Your task to perform on an android device: Go to display settings Image 0: 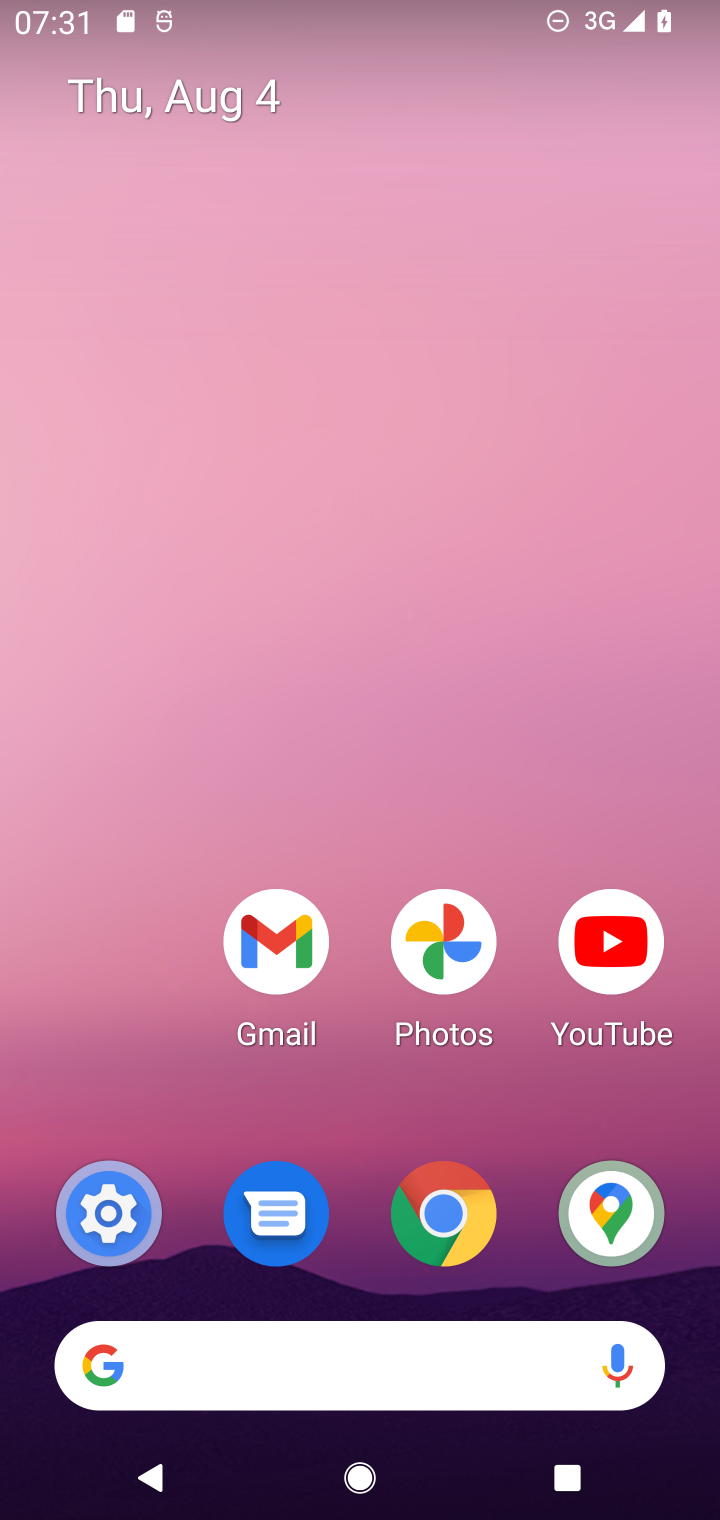
Step 0: drag from (159, 1072) to (203, 520)
Your task to perform on an android device: Go to display settings Image 1: 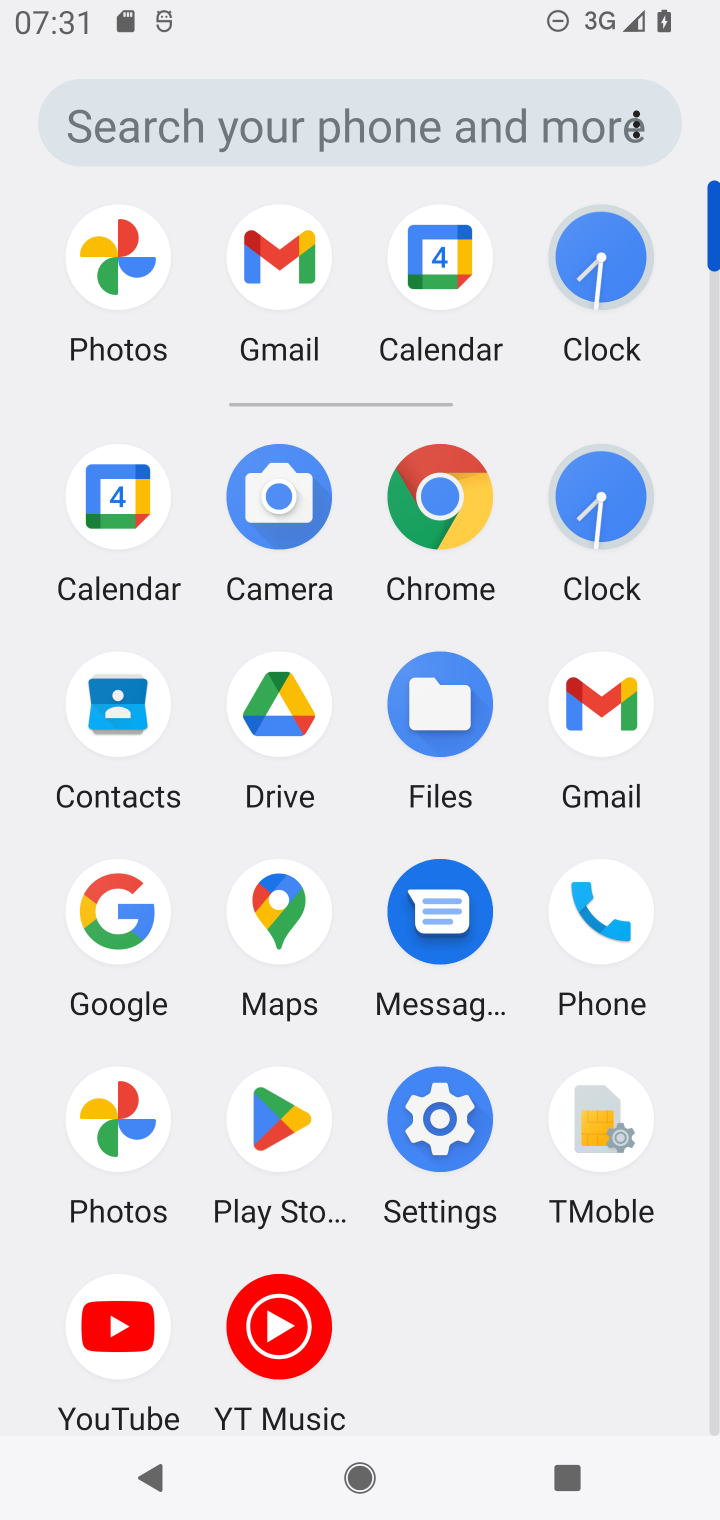
Step 1: click (446, 1120)
Your task to perform on an android device: Go to display settings Image 2: 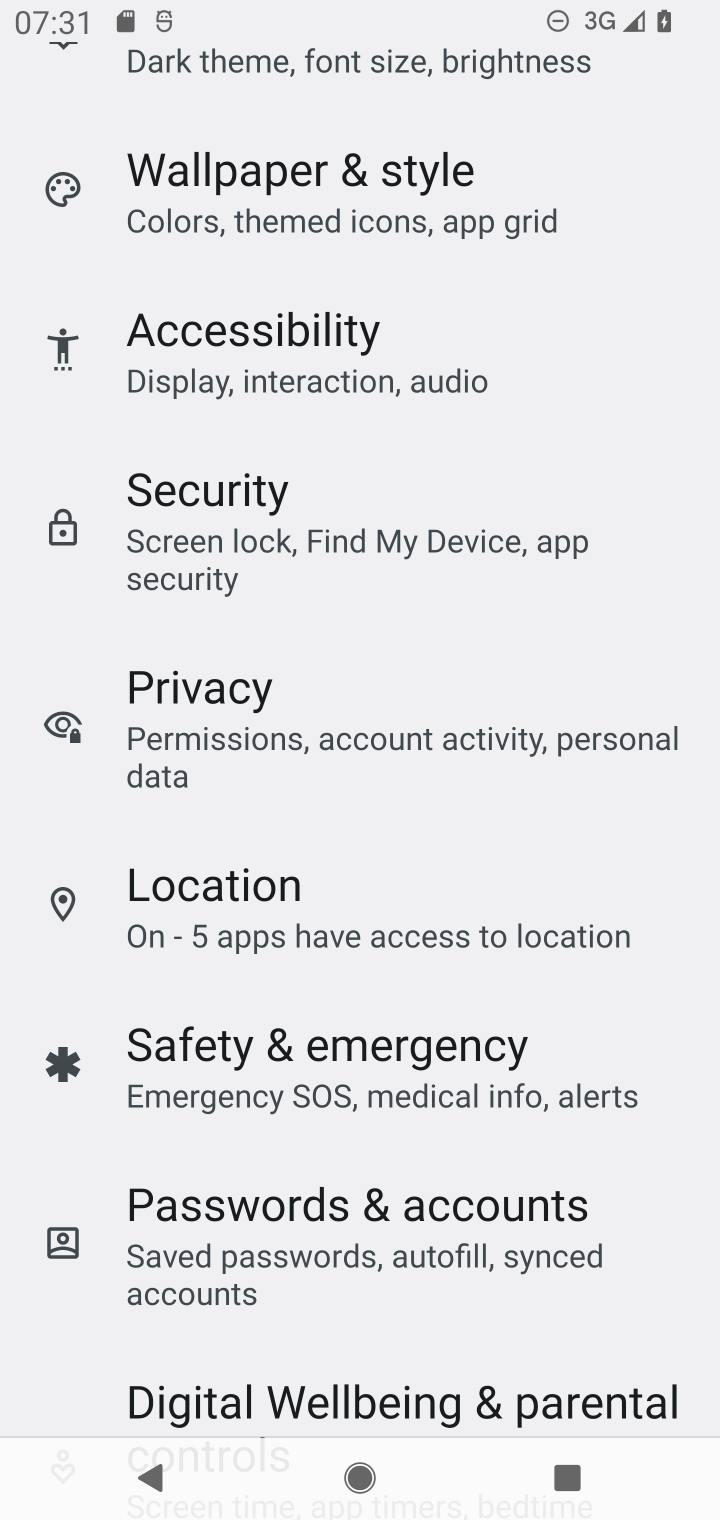
Step 2: drag from (649, 1272) to (630, 852)
Your task to perform on an android device: Go to display settings Image 3: 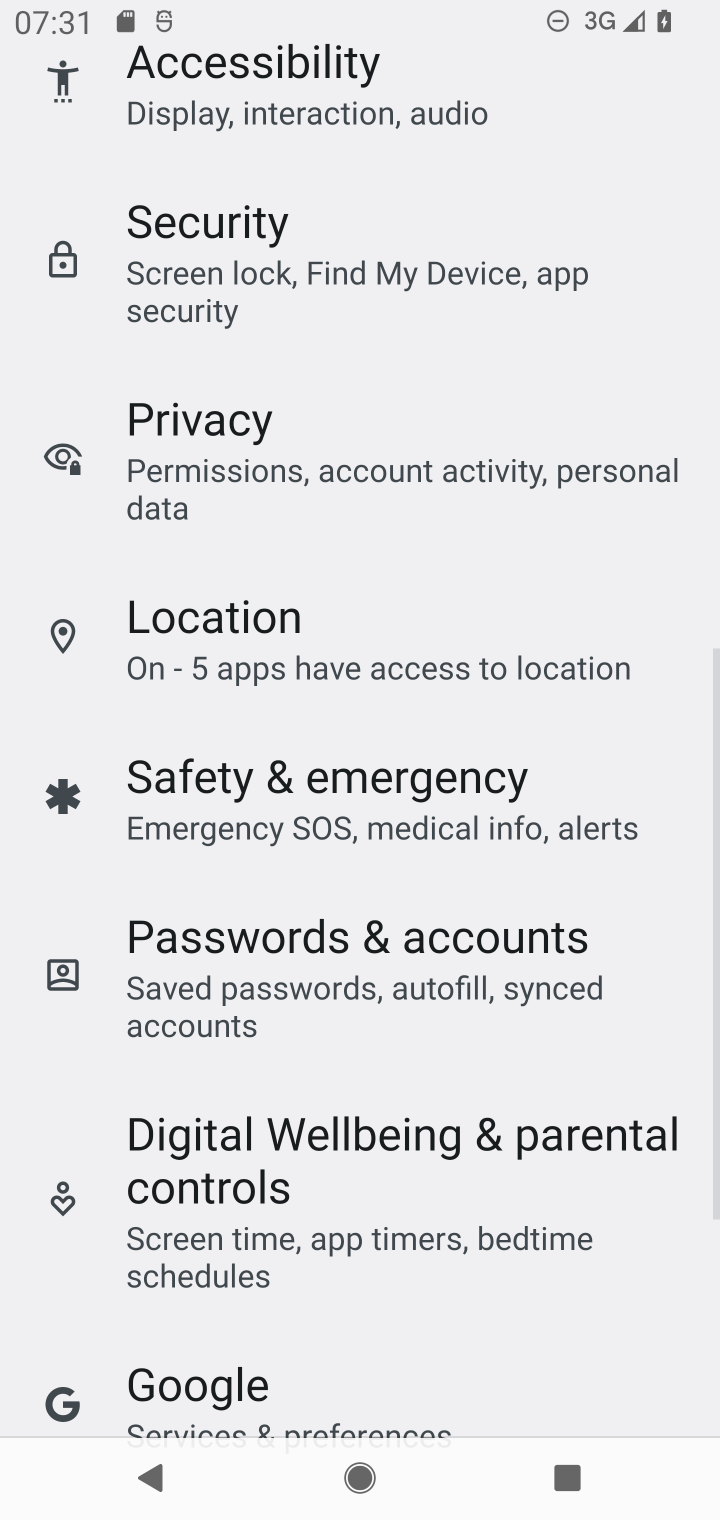
Step 3: drag from (547, 1287) to (543, 1022)
Your task to perform on an android device: Go to display settings Image 4: 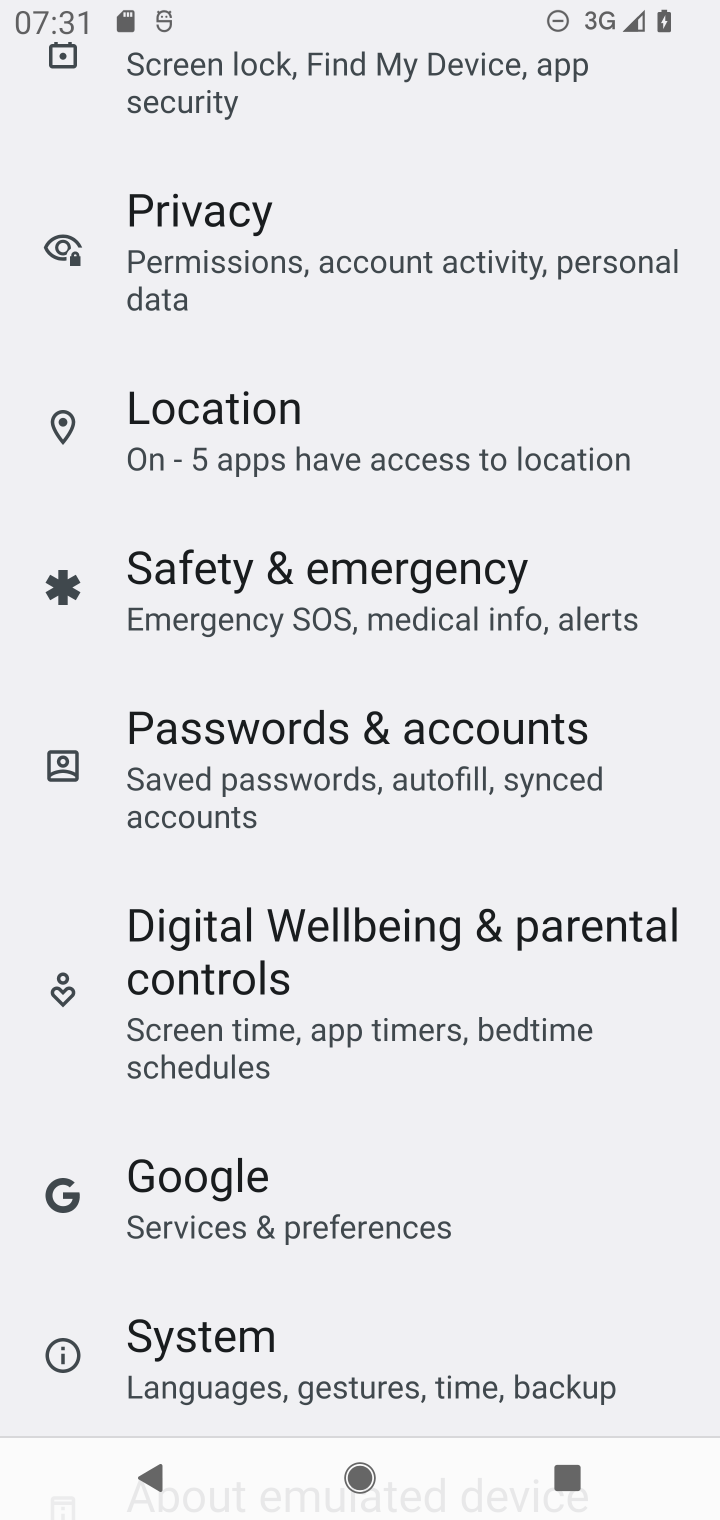
Step 4: drag from (541, 1233) to (535, 852)
Your task to perform on an android device: Go to display settings Image 5: 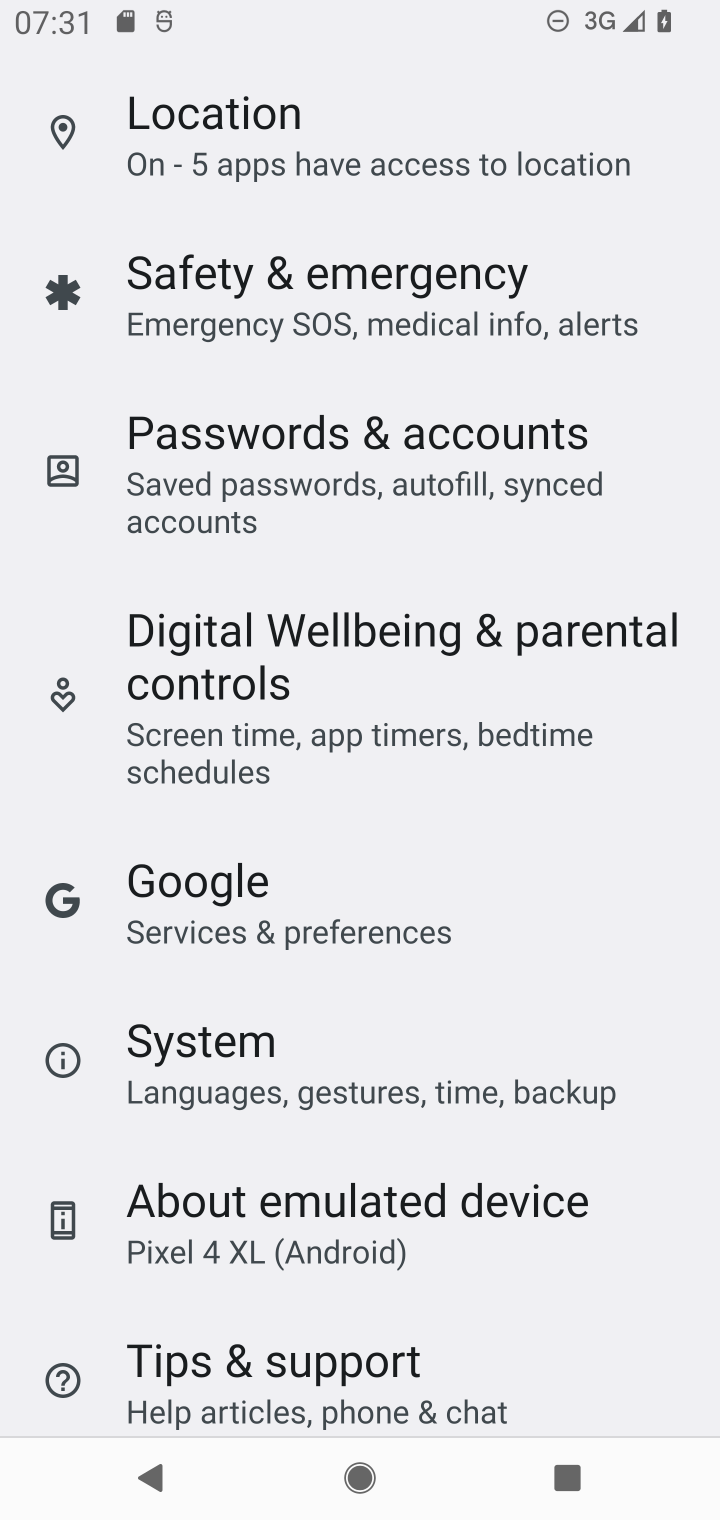
Step 5: drag from (554, 1280) to (565, 898)
Your task to perform on an android device: Go to display settings Image 6: 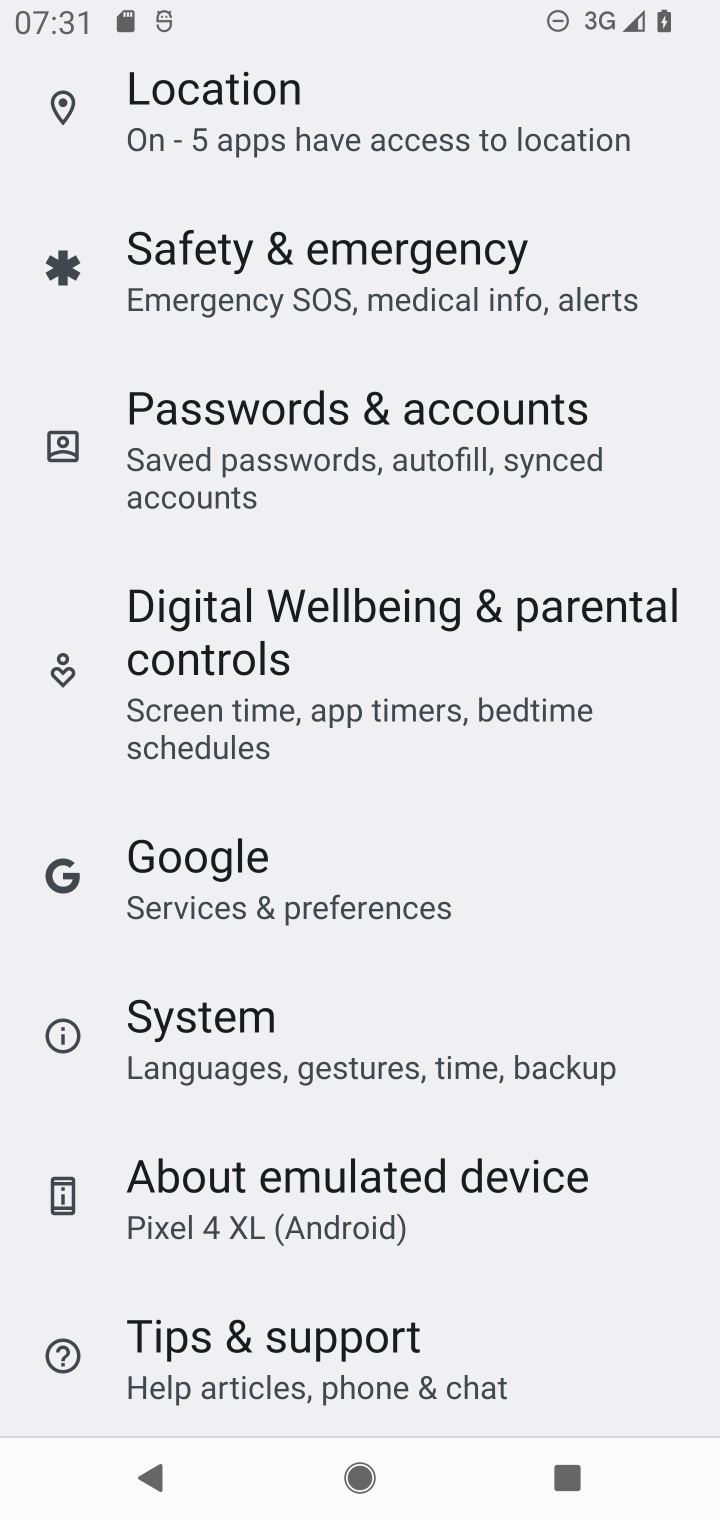
Step 6: drag from (548, 1174) to (530, 813)
Your task to perform on an android device: Go to display settings Image 7: 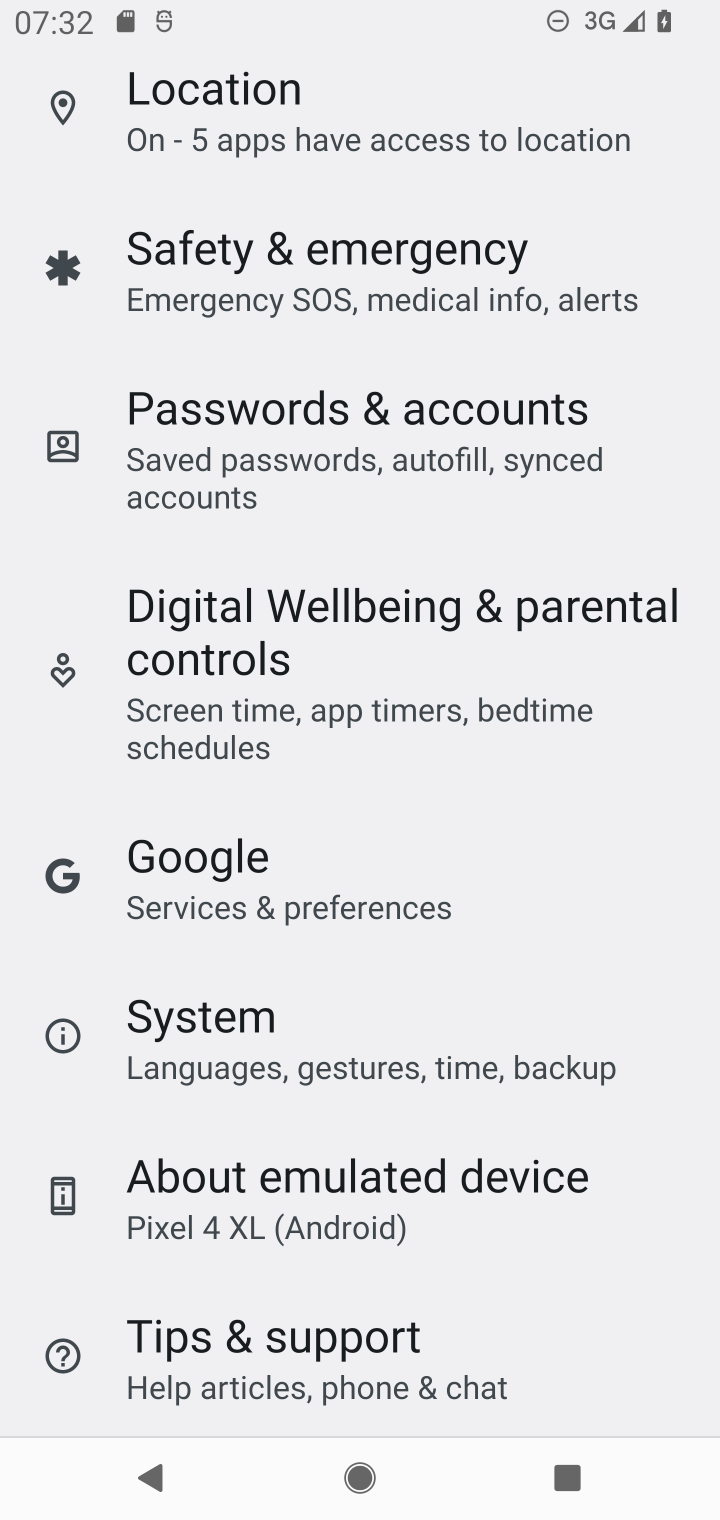
Step 7: drag from (579, 755) to (593, 1043)
Your task to perform on an android device: Go to display settings Image 8: 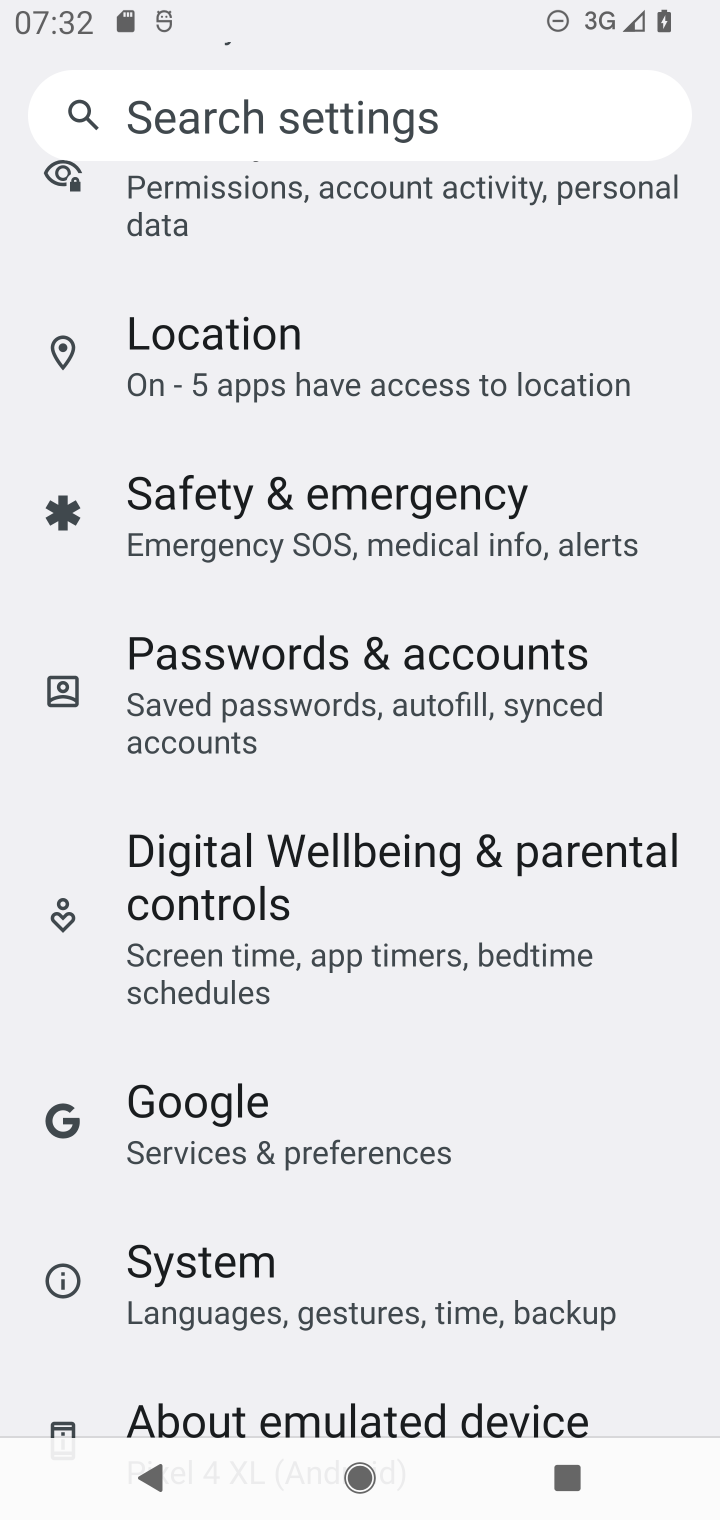
Step 8: drag from (655, 664) to (661, 966)
Your task to perform on an android device: Go to display settings Image 9: 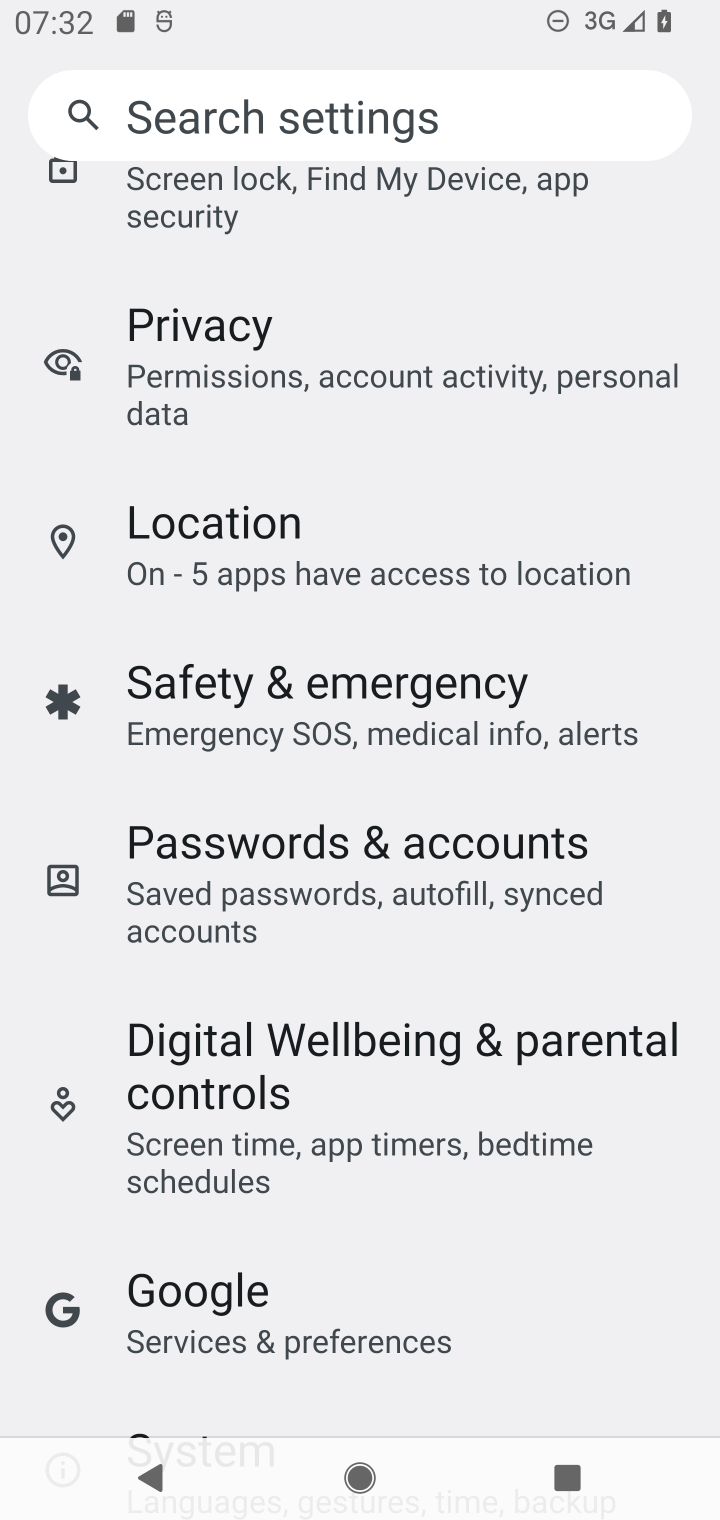
Step 9: drag from (601, 456) to (594, 1078)
Your task to perform on an android device: Go to display settings Image 10: 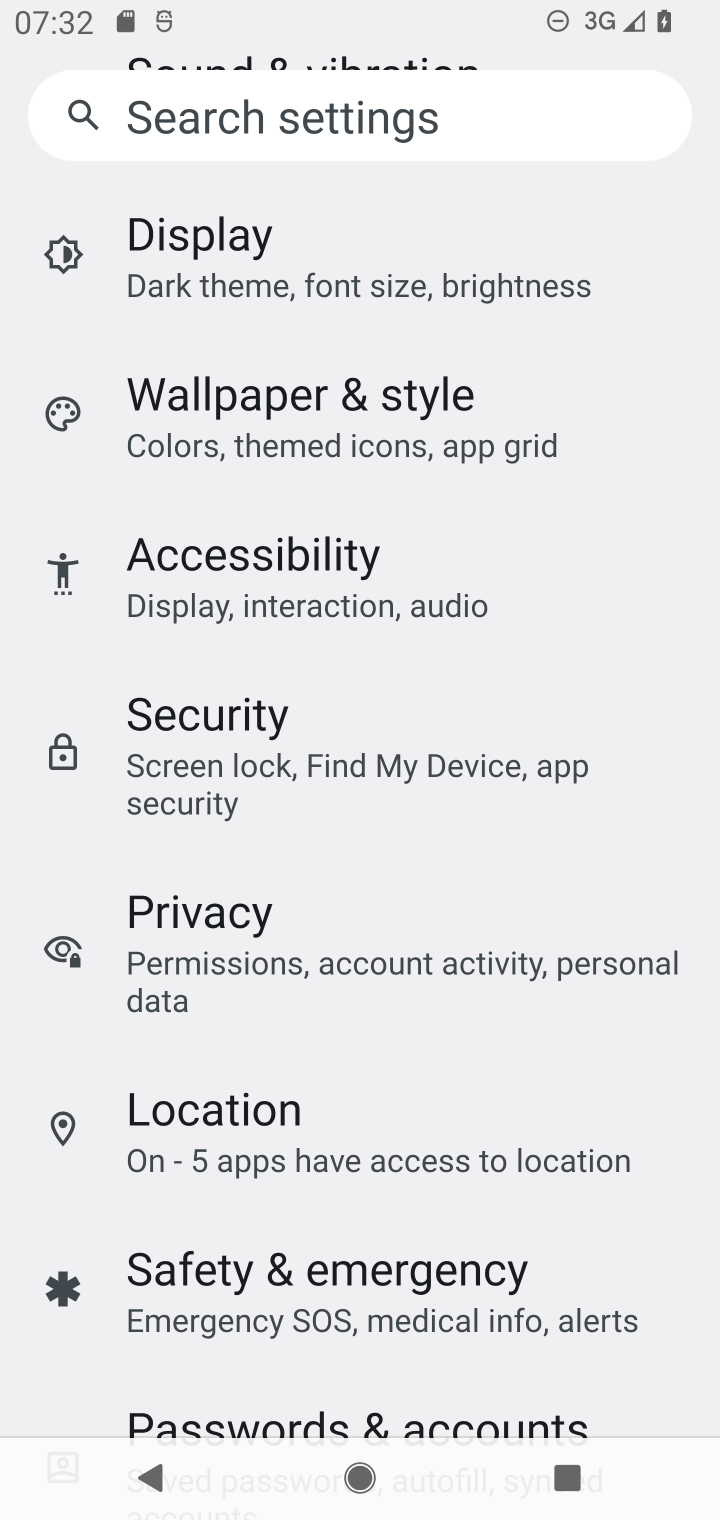
Step 10: drag from (648, 714) to (641, 828)
Your task to perform on an android device: Go to display settings Image 11: 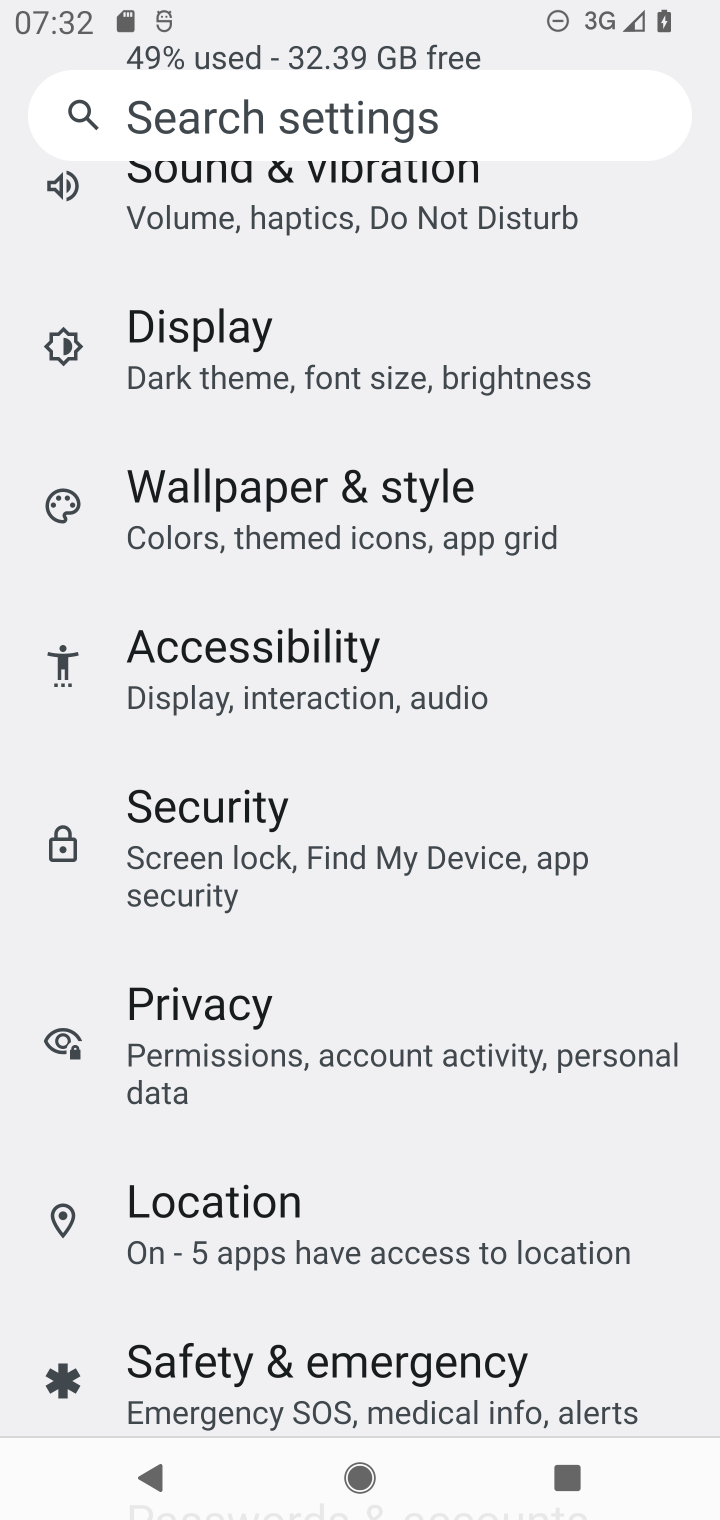
Step 11: click (452, 351)
Your task to perform on an android device: Go to display settings Image 12: 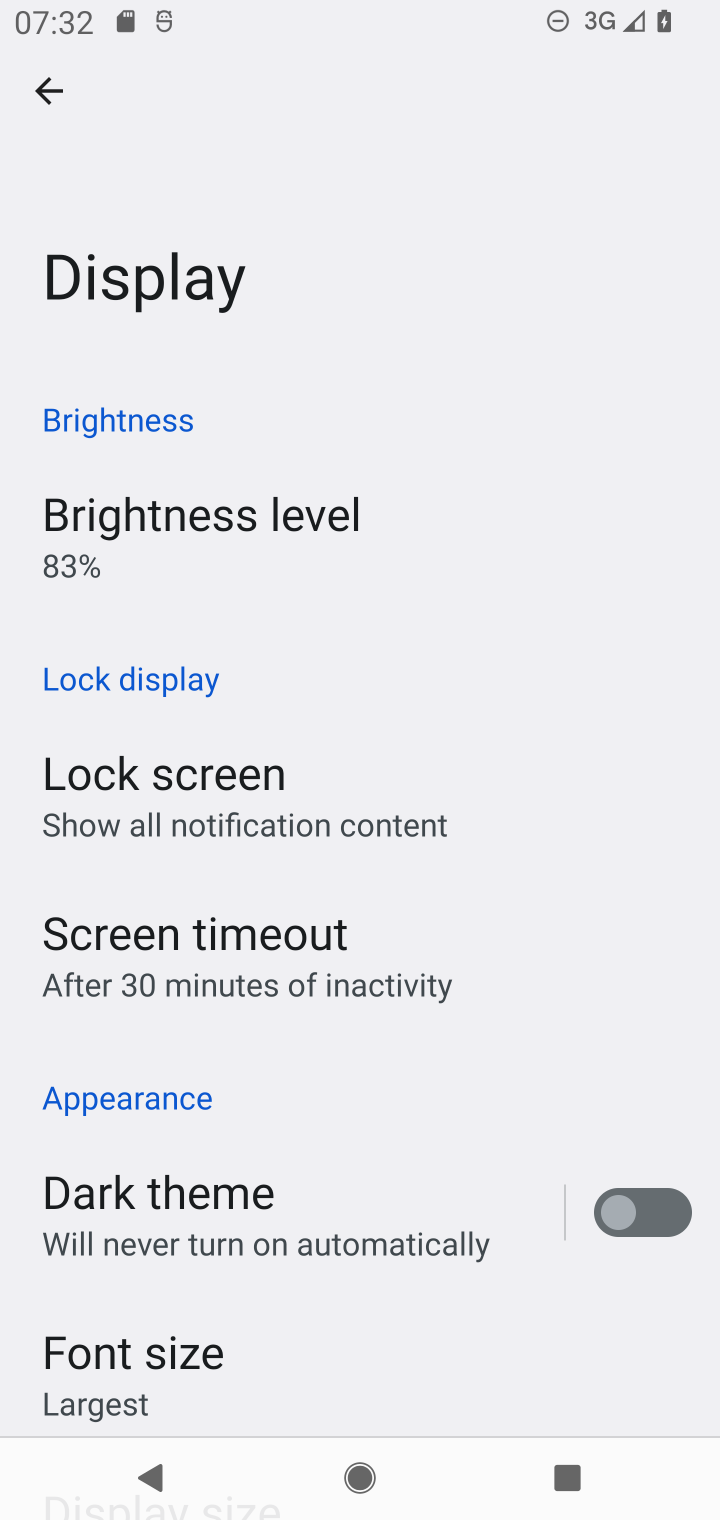
Step 12: task complete